Your task to perform on an android device: Open notification settings Image 0: 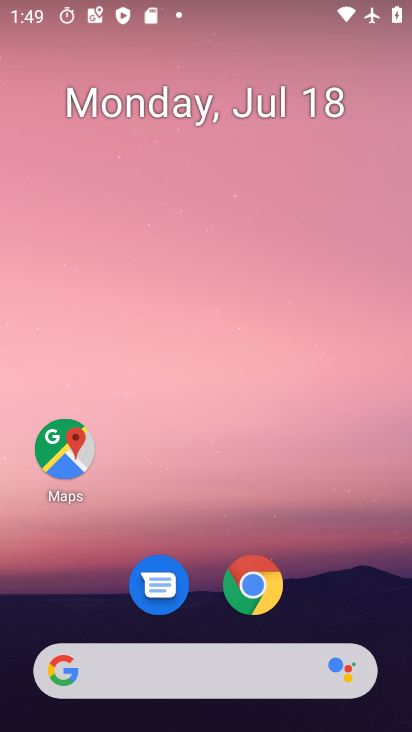
Step 0: press home button
Your task to perform on an android device: Open notification settings Image 1: 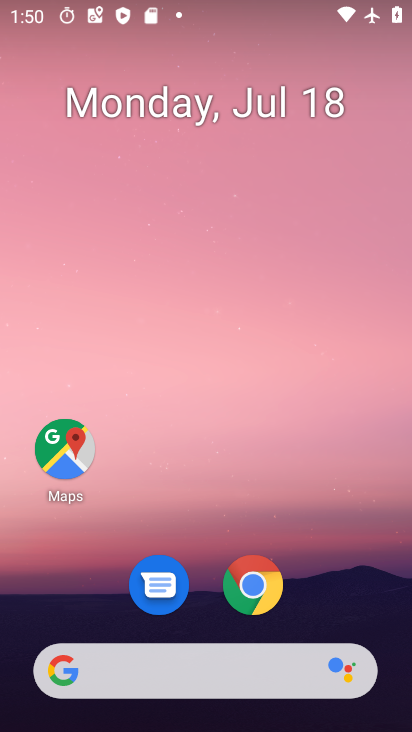
Step 1: drag from (186, 666) to (304, 33)
Your task to perform on an android device: Open notification settings Image 2: 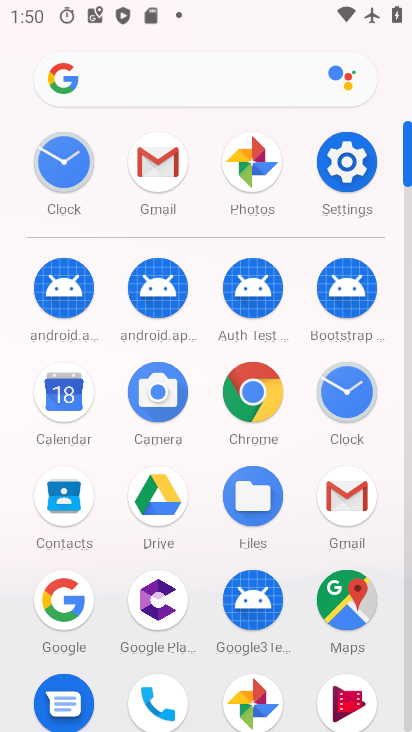
Step 2: click (347, 158)
Your task to perform on an android device: Open notification settings Image 3: 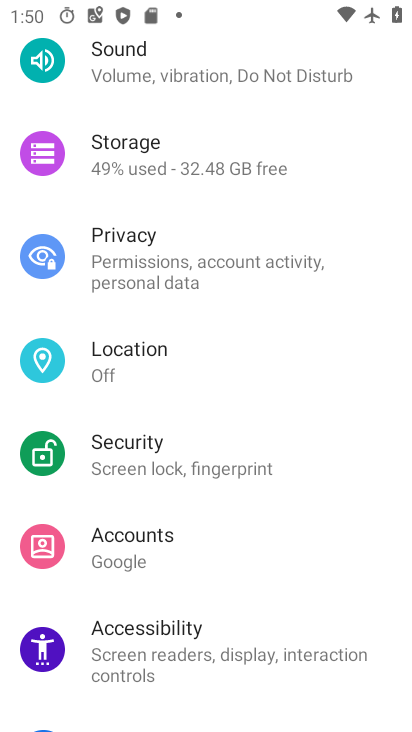
Step 3: drag from (330, 98) to (291, 557)
Your task to perform on an android device: Open notification settings Image 4: 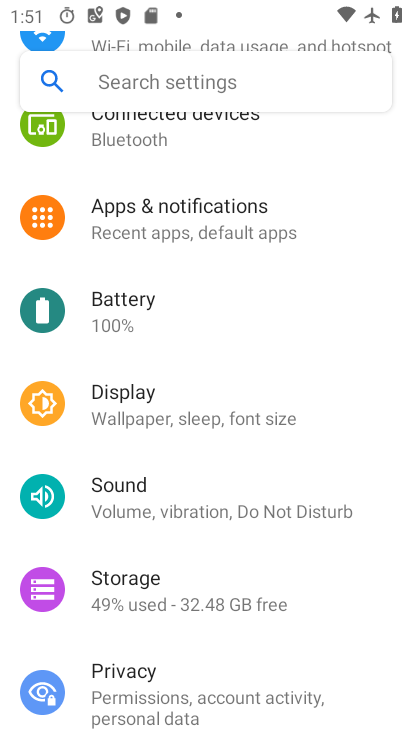
Step 4: click (208, 211)
Your task to perform on an android device: Open notification settings Image 5: 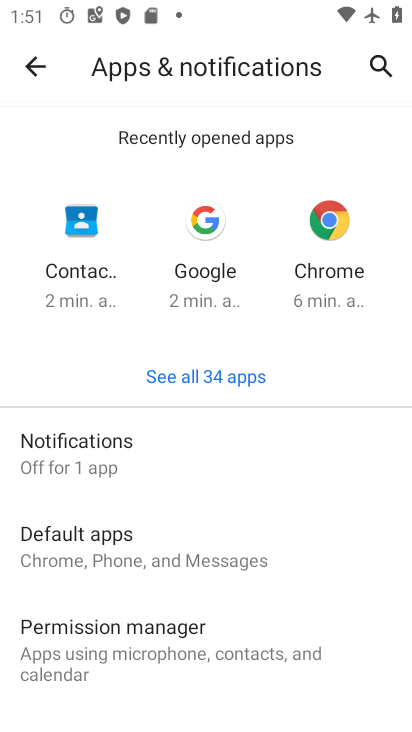
Step 5: click (106, 455)
Your task to perform on an android device: Open notification settings Image 6: 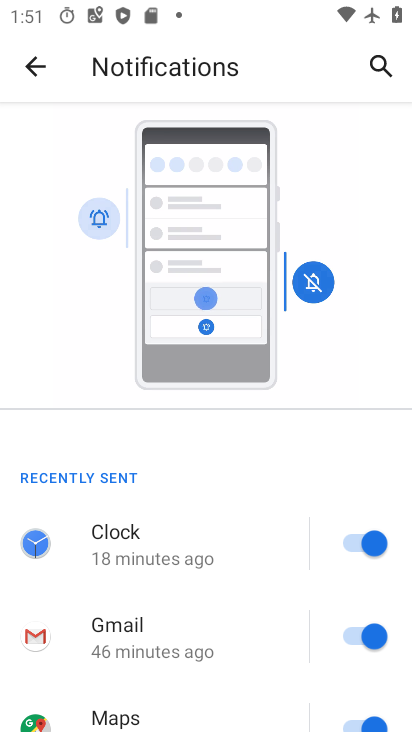
Step 6: task complete